Your task to perform on an android device: Search for sushi restaurants on Maps Image 0: 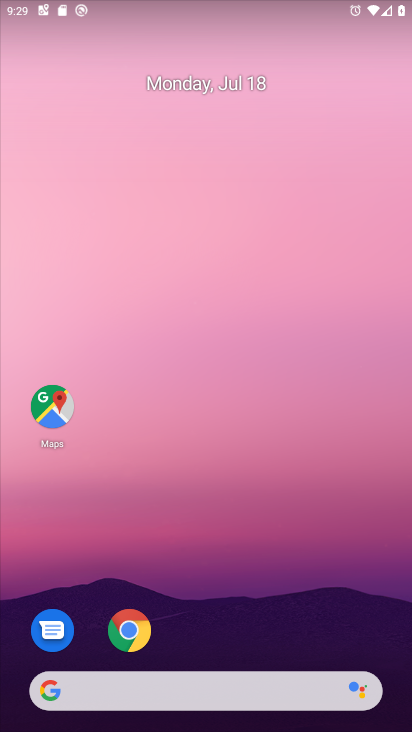
Step 0: click (36, 407)
Your task to perform on an android device: Search for sushi restaurants on Maps Image 1: 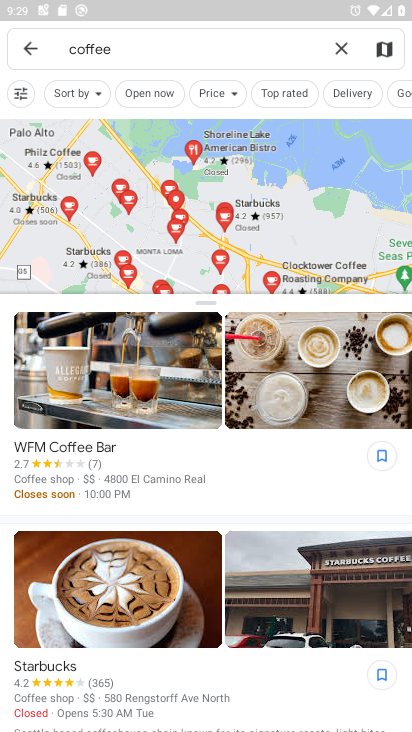
Step 1: click (334, 42)
Your task to perform on an android device: Search for sushi restaurants on Maps Image 2: 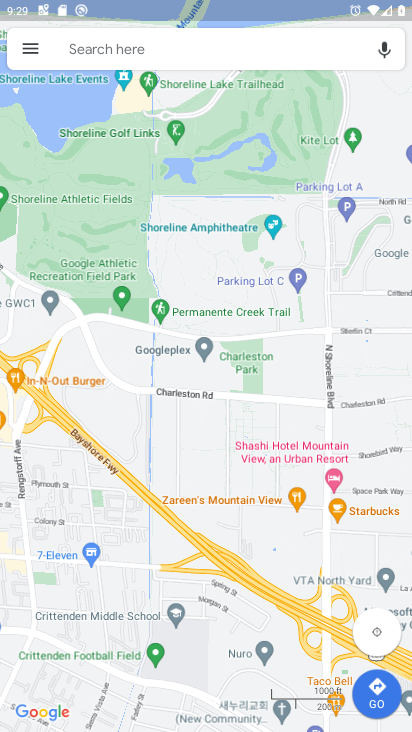
Step 2: click (108, 54)
Your task to perform on an android device: Search for sushi restaurants on Maps Image 3: 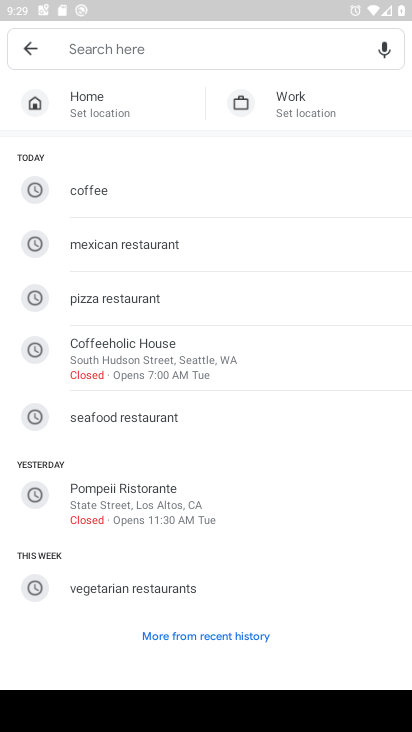
Step 3: type "sushi restaurants"
Your task to perform on an android device: Search for sushi restaurants on Maps Image 4: 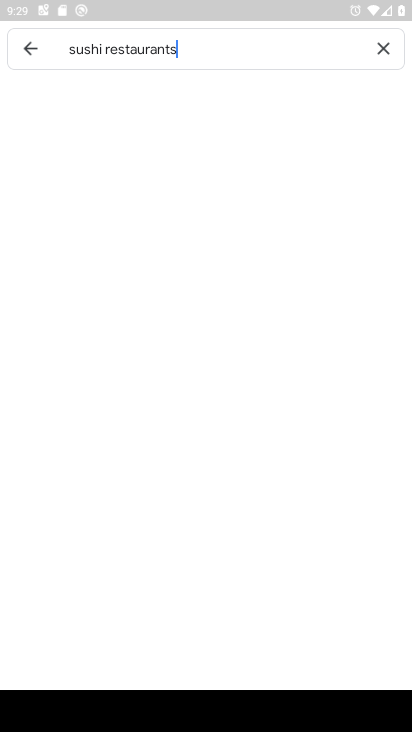
Step 4: type ""
Your task to perform on an android device: Search for sushi restaurants on Maps Image 5: 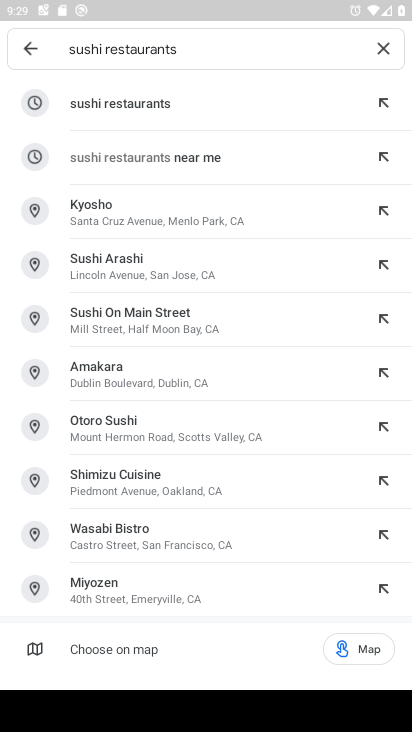
Step 5: click (162, 95)
Your task to perform on an android device: Search for sushi restaurants on Maps Image 6: 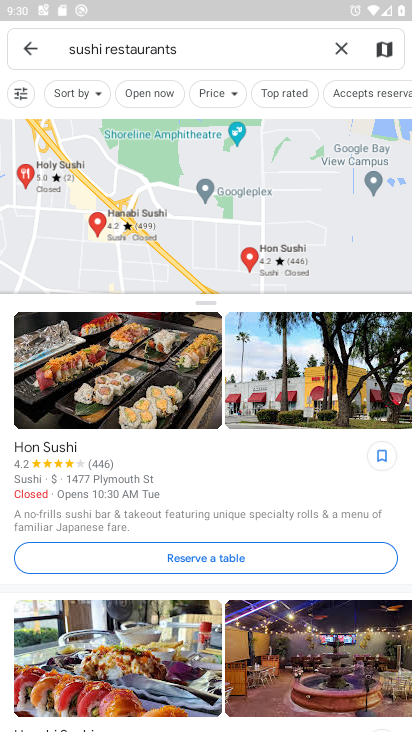
Step 6: task complete